Your task to perform on an android device: turn notification dots off Image 0: 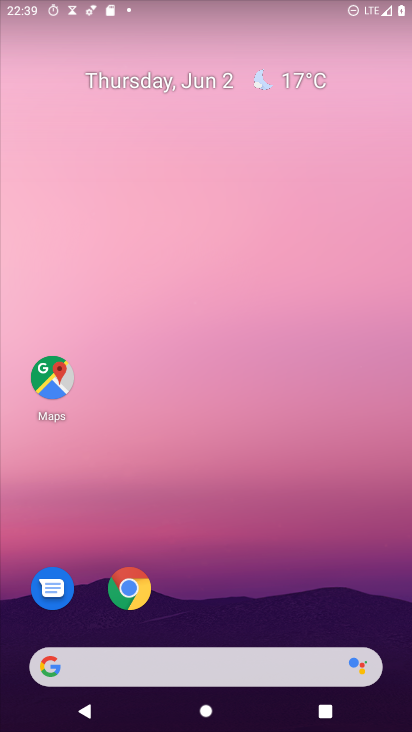
Step 0: drag from (233, 412) to (290, 6)
Your task to perform on an android device: turn notification dots off Image 1: 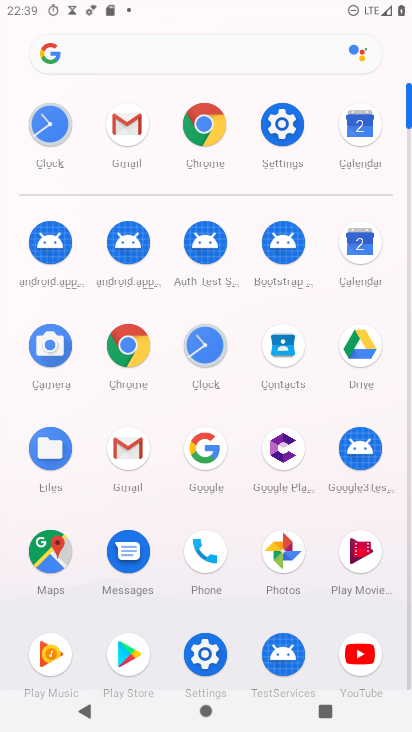
Step 1: click (276, 123)
Your task to perform on an android device: turn notification dots off Image 2: 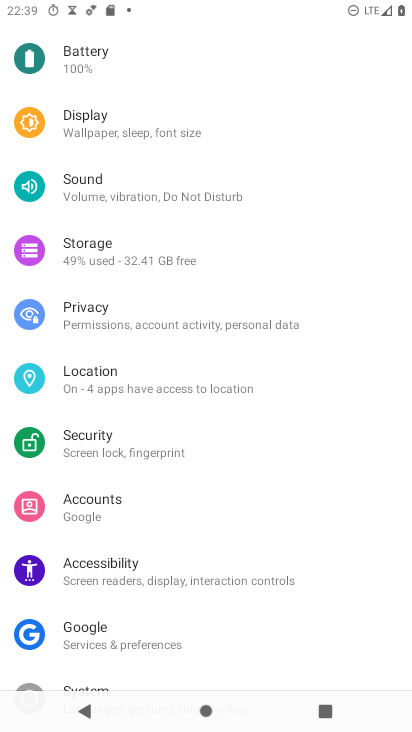
Step 2: drag from (222, 171) to (180, 678)
Your task to perform on an android device: turn notification dots off Image 3: 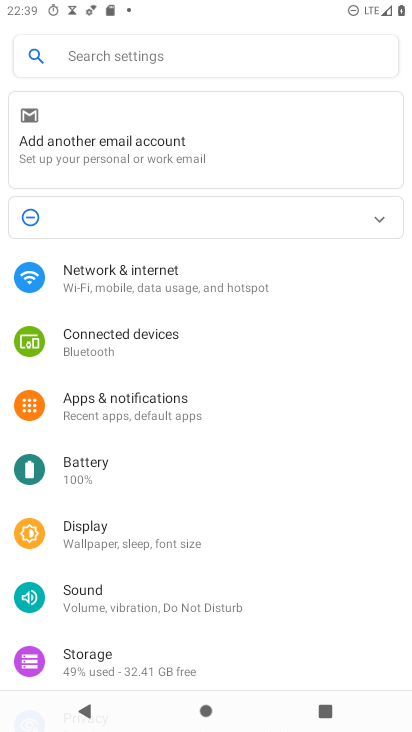
Step 3: click (124, 409)
Your task to perform on an android device: turn notification dots off Image 4: 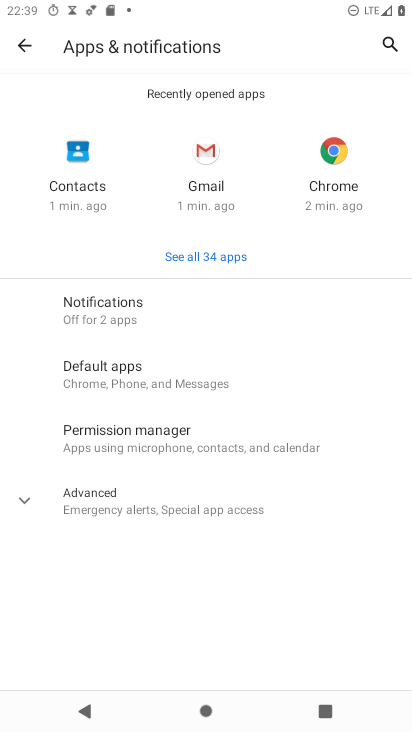
Step 4: click (113, 305)
Your task to perform on an android device: turn notification dots off Image 5: 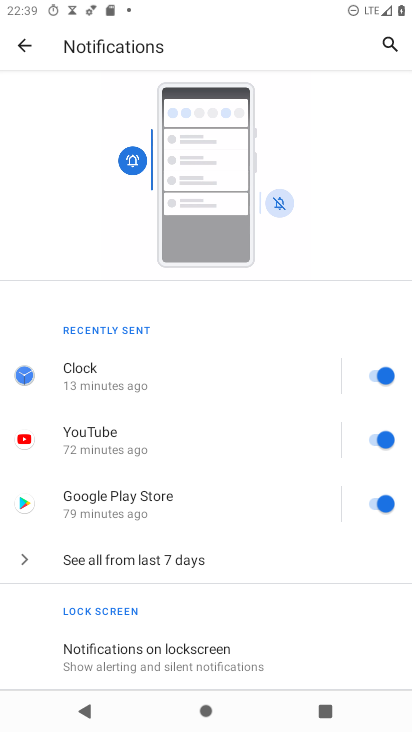
Step 5: drag from (166, 615) to (219, 57)
Your task to perform on an android device: turn notification dots off Image 6: 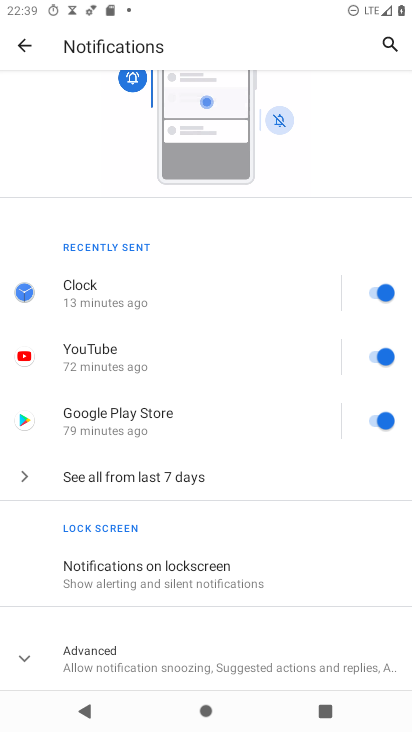
Step 6: click (155, 652)
Your task to perform on an android device: turn notification dots off Image 7: 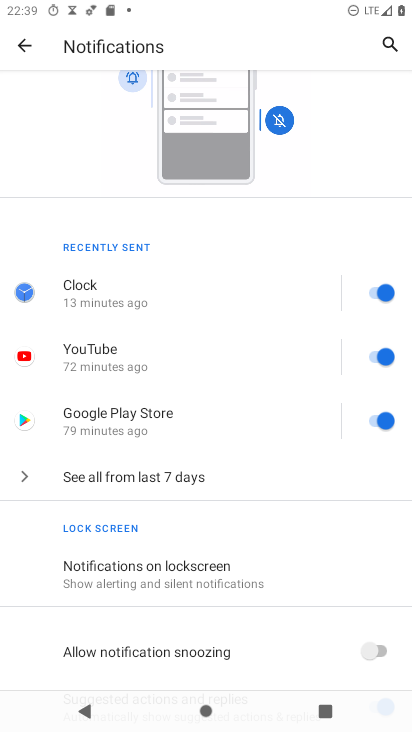
Step 7: task complete